Your task to perform on an android device: Open eBay Image 0: 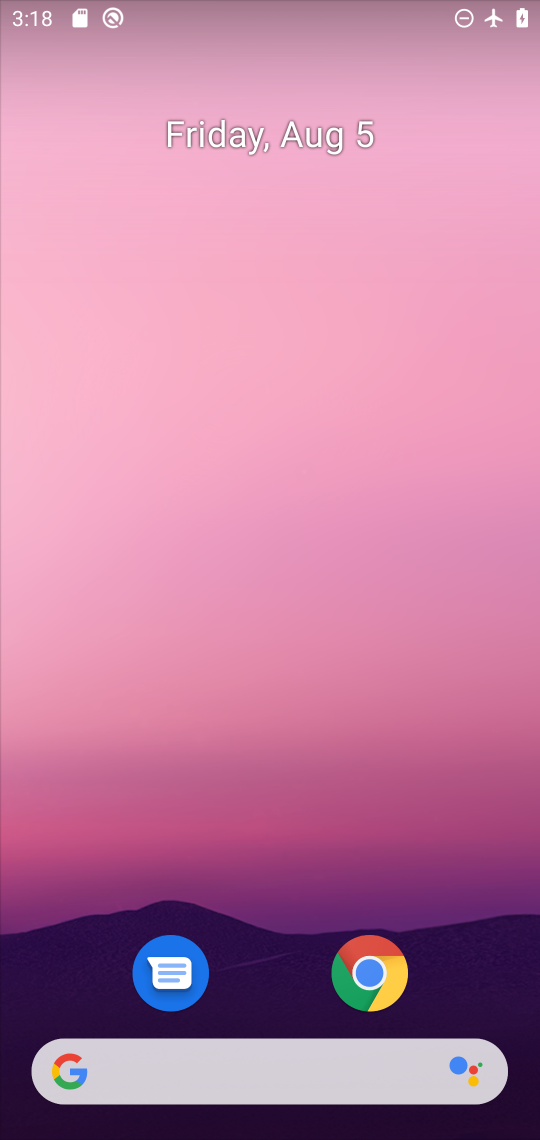
Step 0: drag from (311, 1014) to (300, 24)
Your task to perform on an android device: Open eBay Image 1: 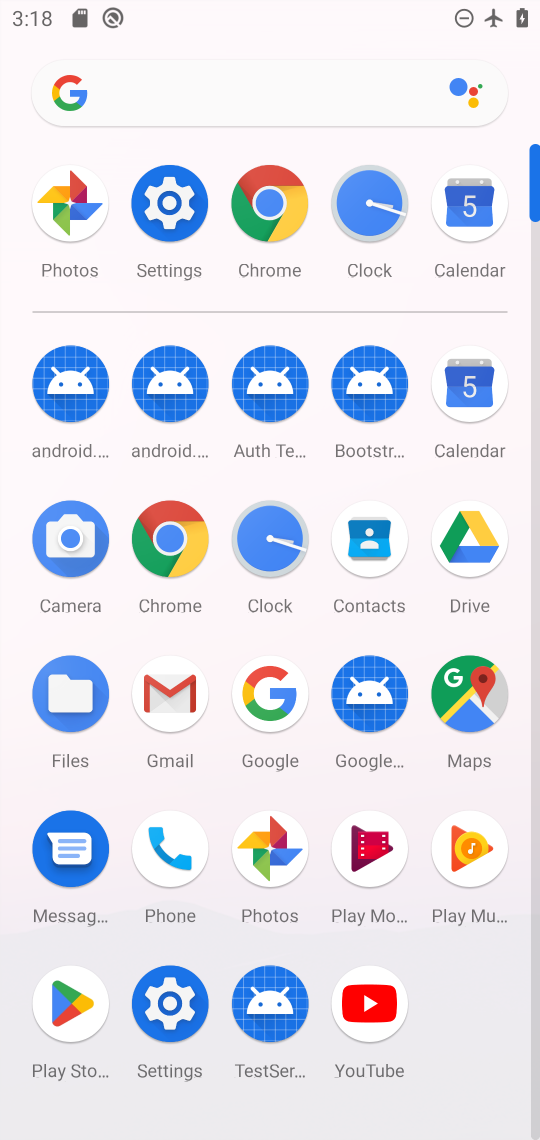
Step 1: click (264, 226)
Your task to perform on an android device: Open eBay Image 2: 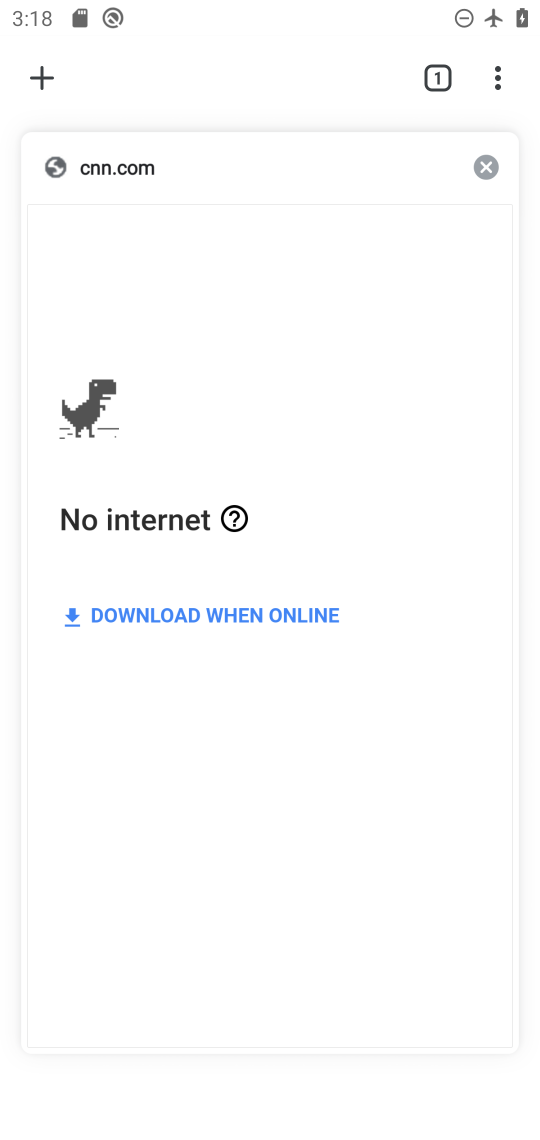
Step 2: click (426, 81)
Your task to perform on an android device: Open eBay Image 3: 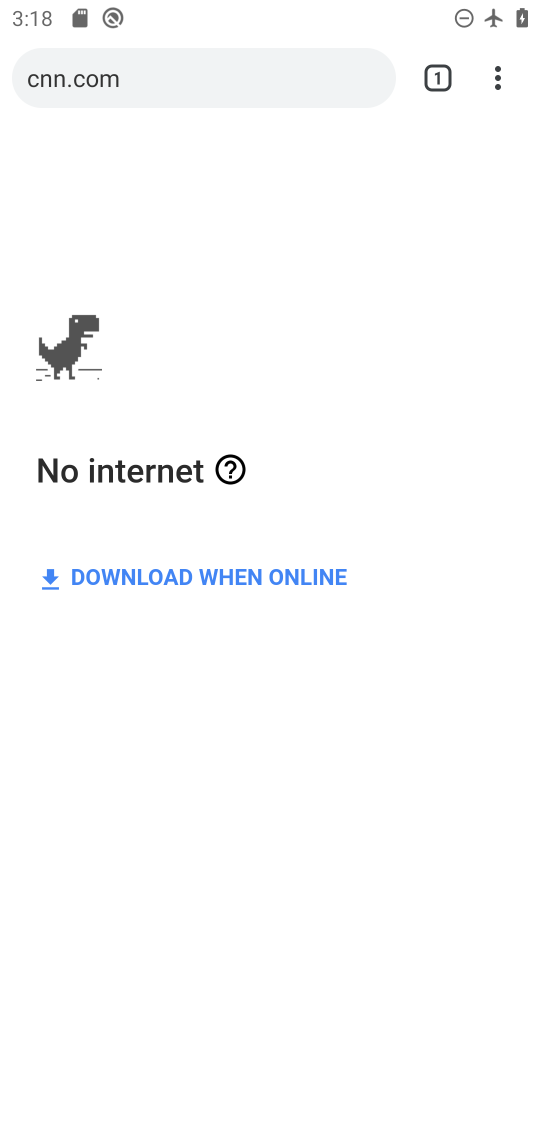
Step 3: click (170, 100)
Your task to perform on an android device: Open eBay Image 4: 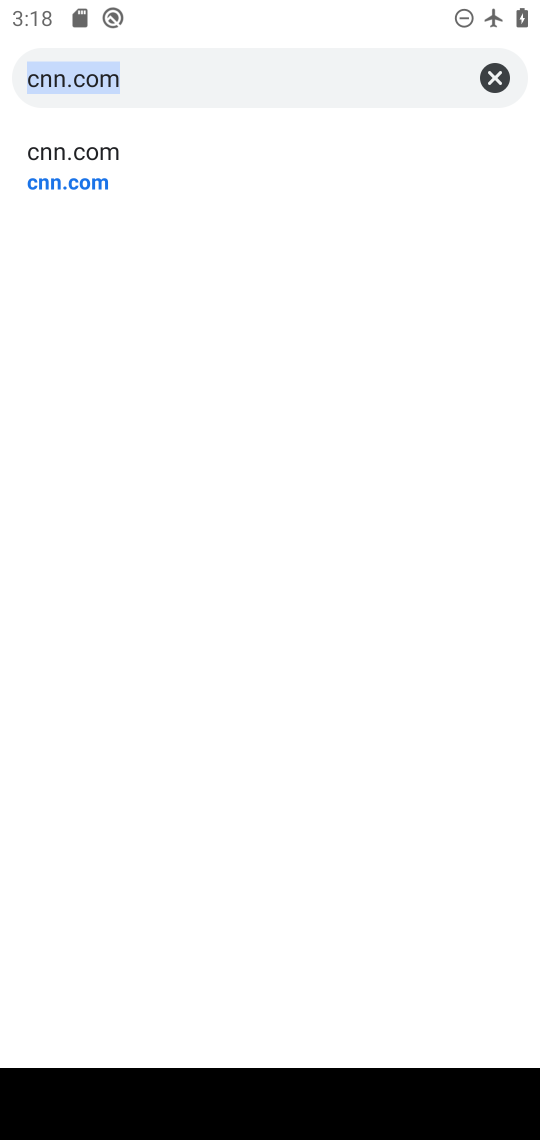
Step 4: click (486, 74)
Your task to perform on an android device: Open eBay Image 5: 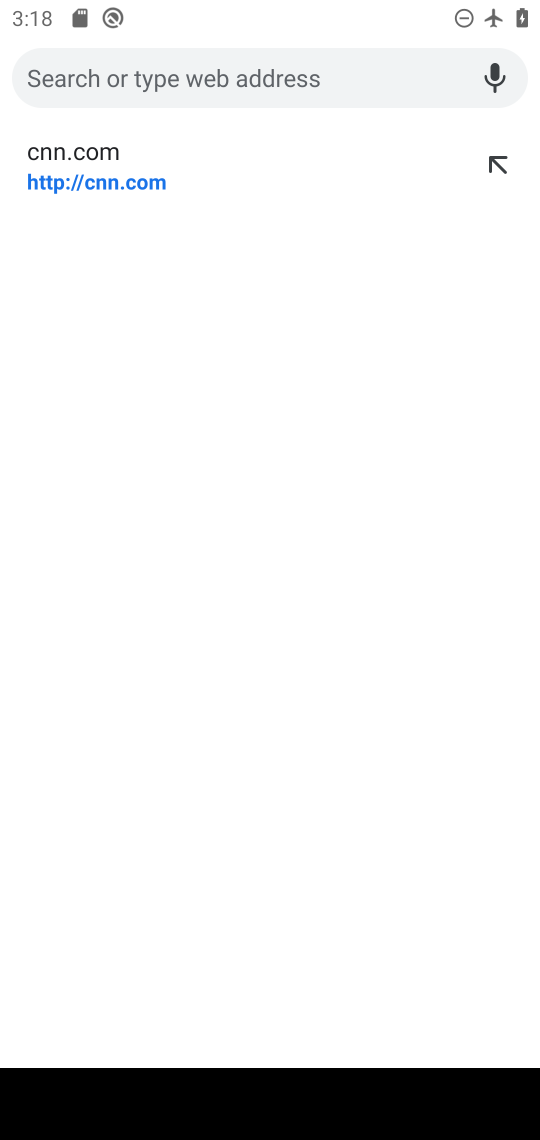
Step 5: type "eBay"
Your task to perform on an android device: Open eBay Image 6: 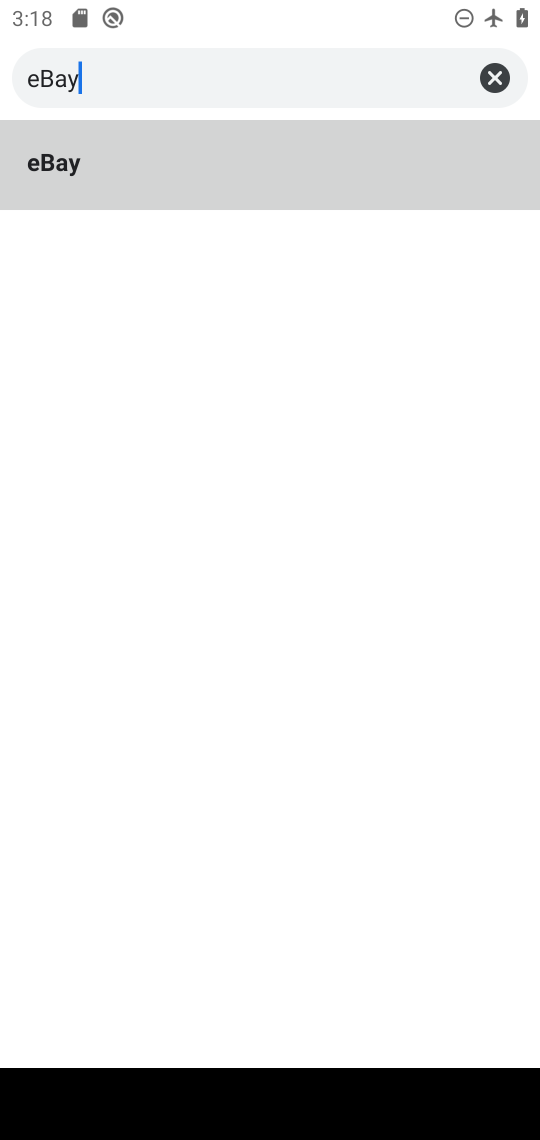
Step 6: type ""
Your task to perform on an android device: Open eBay Image 7: 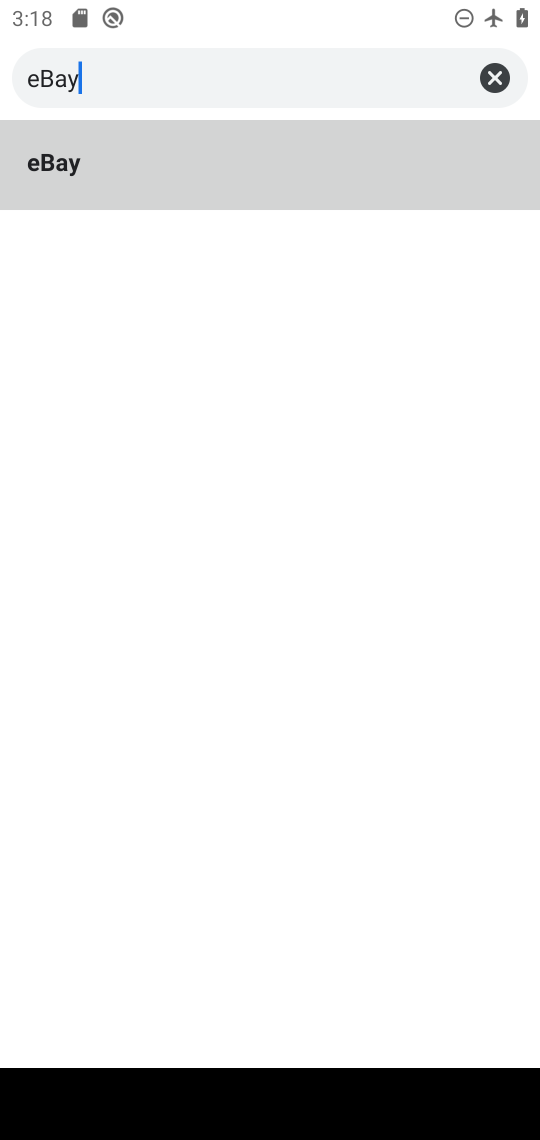
Step 7: click (186, 181)
Your task to perform on an android device: Open eBay Image 8: 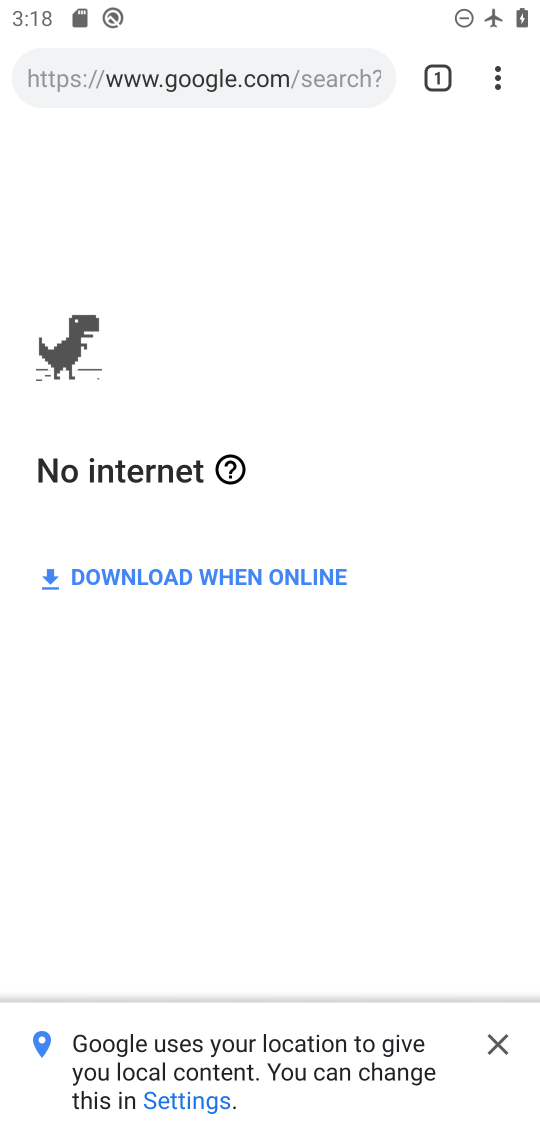
Step 8: task complete